Your task to perform on an android device: turn on priority inbox in the gmail app Image 0: 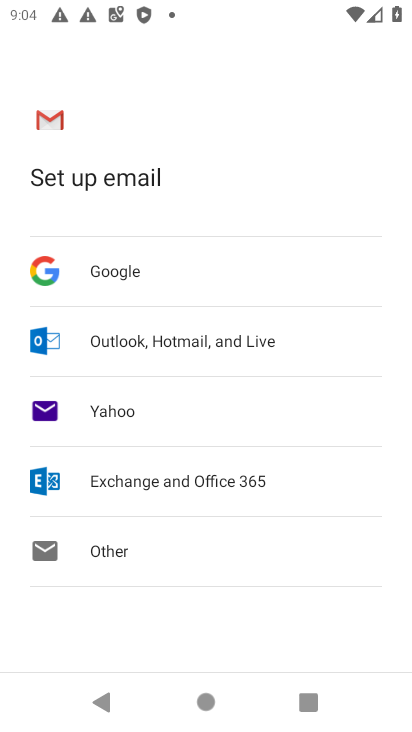
Step 0: press home button
Your task to perform on an android device: turn on priority inbox in the gmail app Image 1: 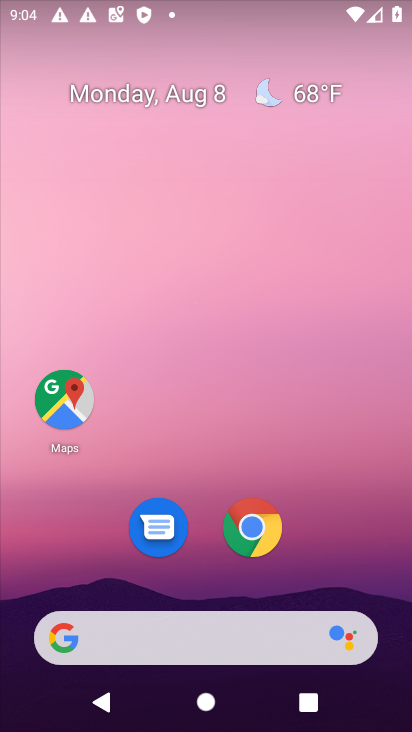
Step 1: drag from (366, 680) to (269, 231)
Your task to perform on an android device: turn on priority inbox in the gmail app Image 2: 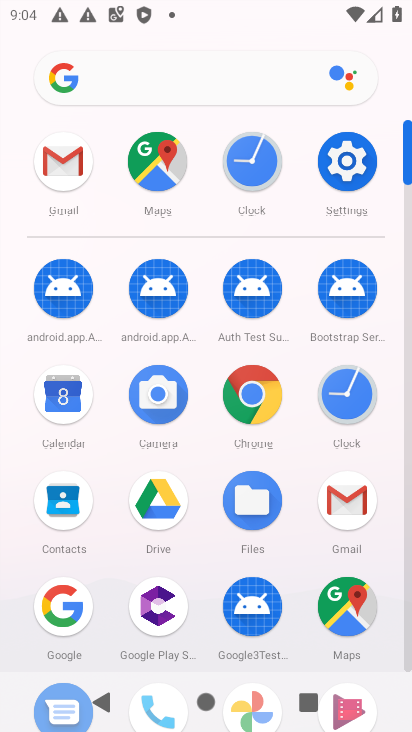
Step 2: click (338, 504)
Your task to perform on an android device: turn on priority inbox in the gmail app Image 3: 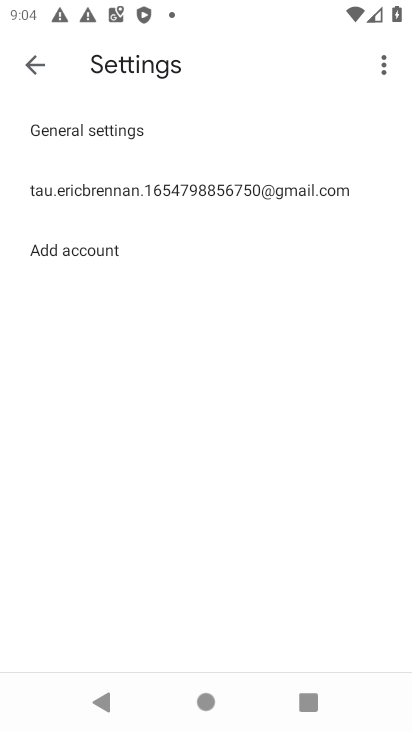
Step 3: click (161, 193)
Your task to perform on an android device: turn on priority inbox in the gmail app Image 4: 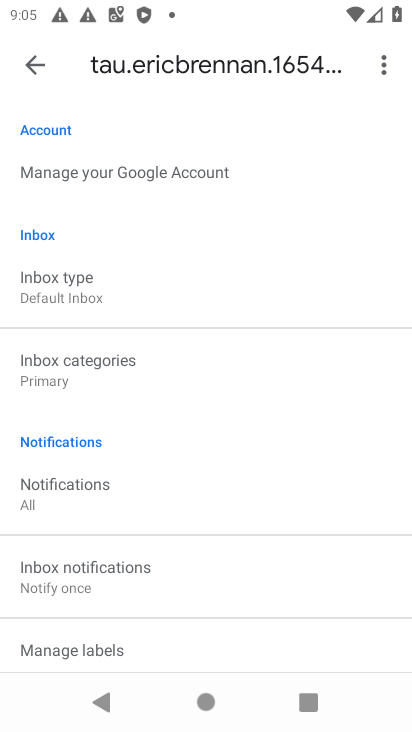
Step 4: click (56, 292)
Your task to perform on an android device: turn on priority inbox in the gmail app Image 5: 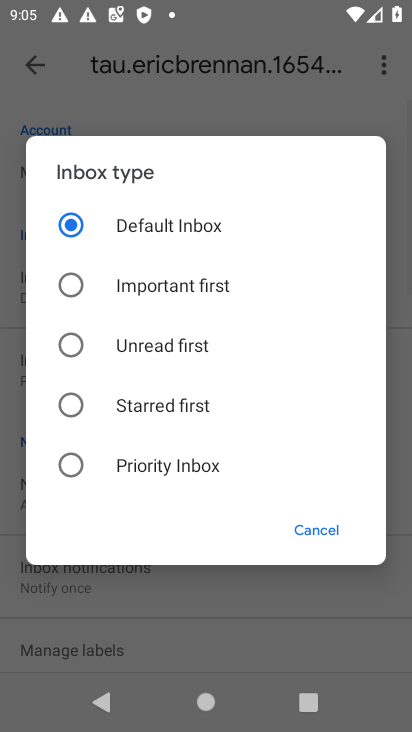
Step 5: click (107, 461)
Your task to perform on an android device: turn on priority inbox in the gmail app Image 6: 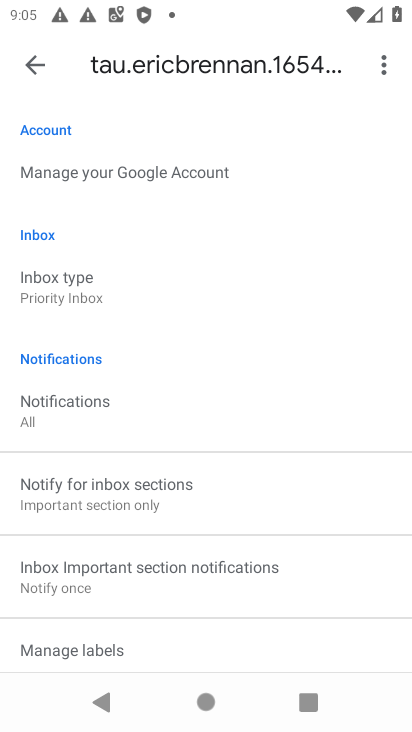
Step 6: task complete